Your task to perform on an android device: open a bookmark in the chrome app Image 0: 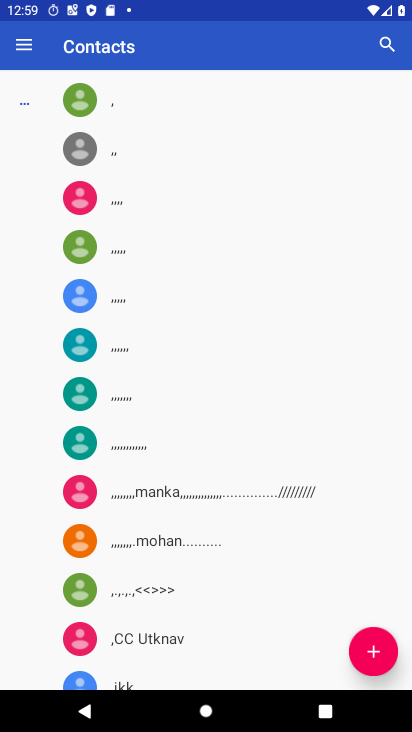
Step 0: press home button
Your task to perform on an android device: open a bookmark in the chrome app Image 1: 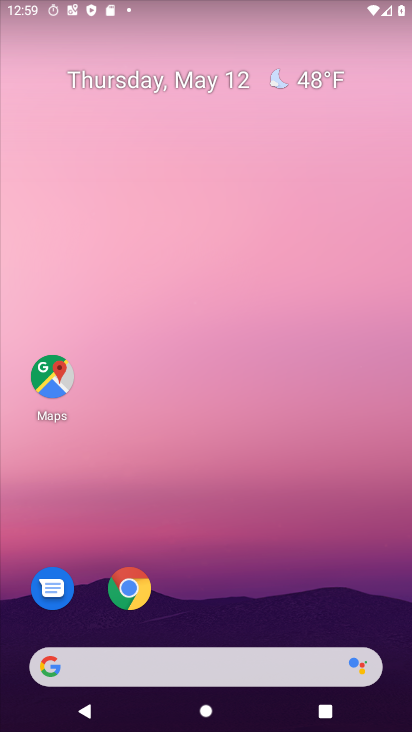
Step 1: click (133, 586)
Your task to perform on an android device: open a bookmark in the chrome app Image 2: 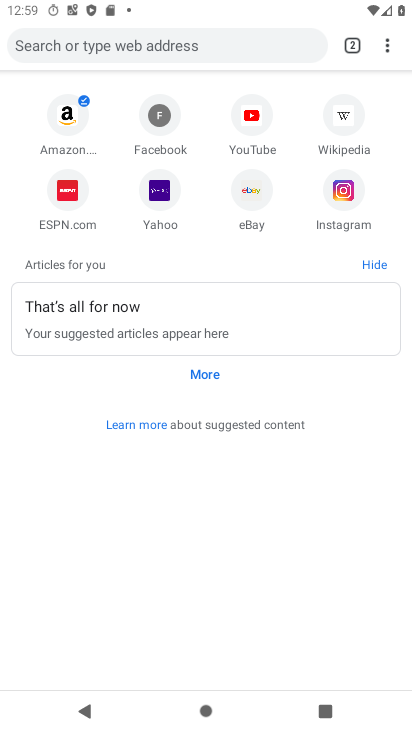
Step 2: click (378, 42)
Your task to perform on an android device: open a bookmark in the chrome app Image 3: 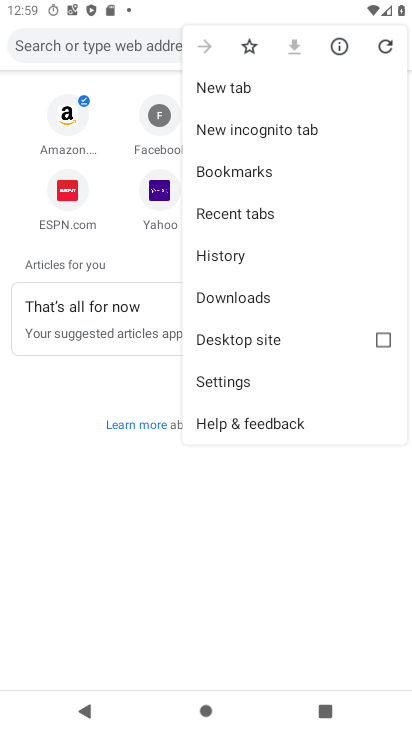
Step 3: click (248, 175)
Your task to perform on an android device: open a bookmark in the chrome app Image 4: 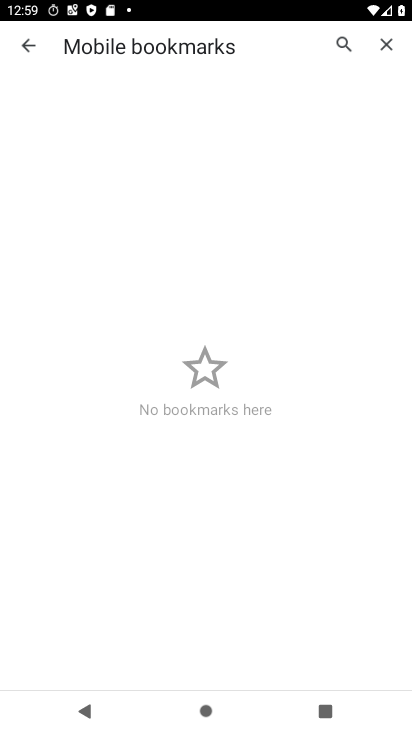
Step 4: task complete